Your task to perform on an android device: Search for pizza restaurants on Maps Image 0: 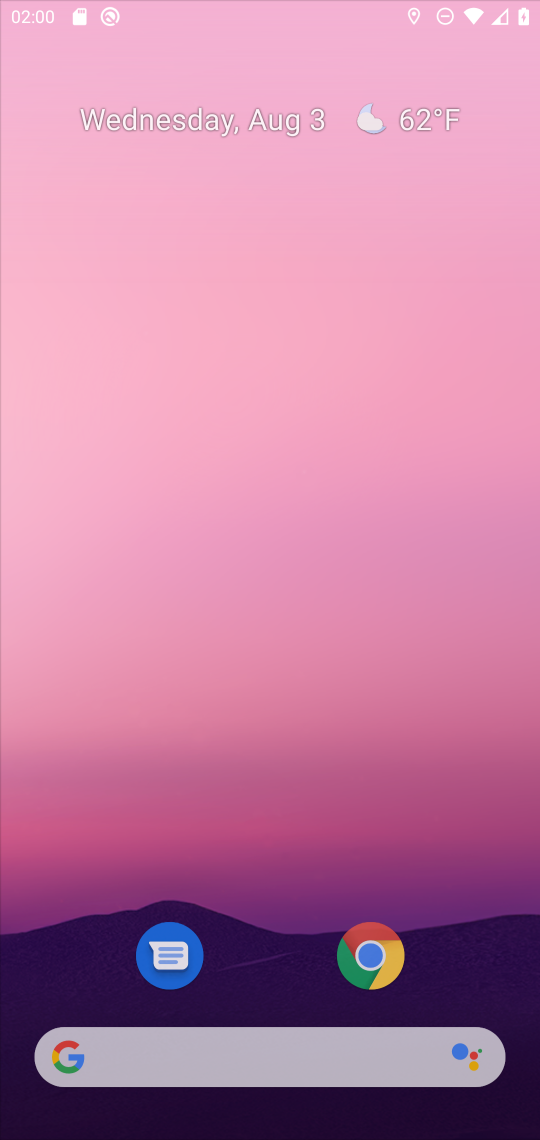
Step 0: press back button
Your task to perform on an android device: Search for pizza restaurants on Maps Image 1: 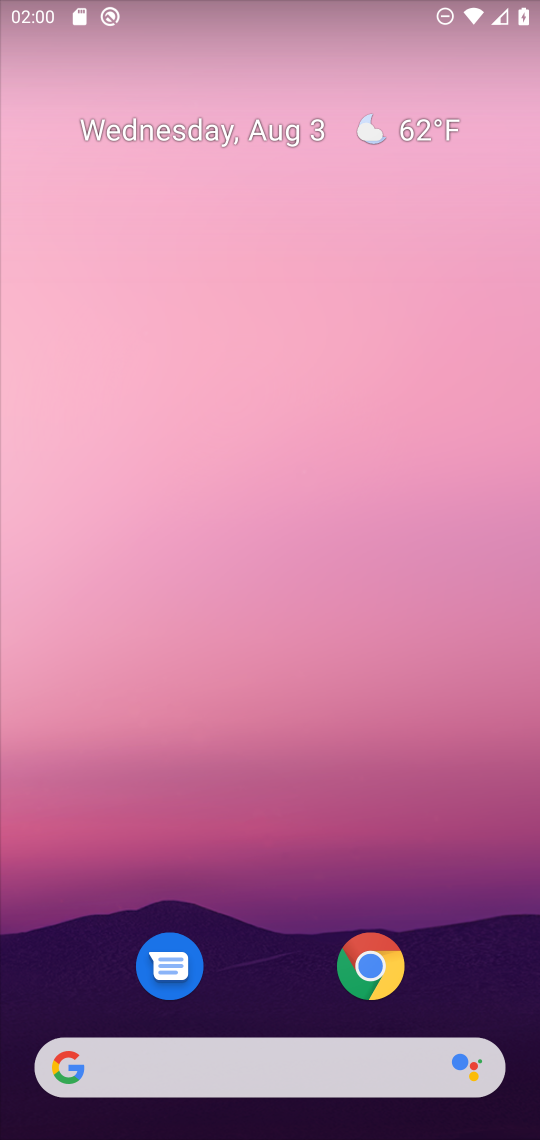
Step 1: drag from (246, 957) to (261, 306)
Your task to perform on an android device: Search for pizza restaurants on Maps Image 2: 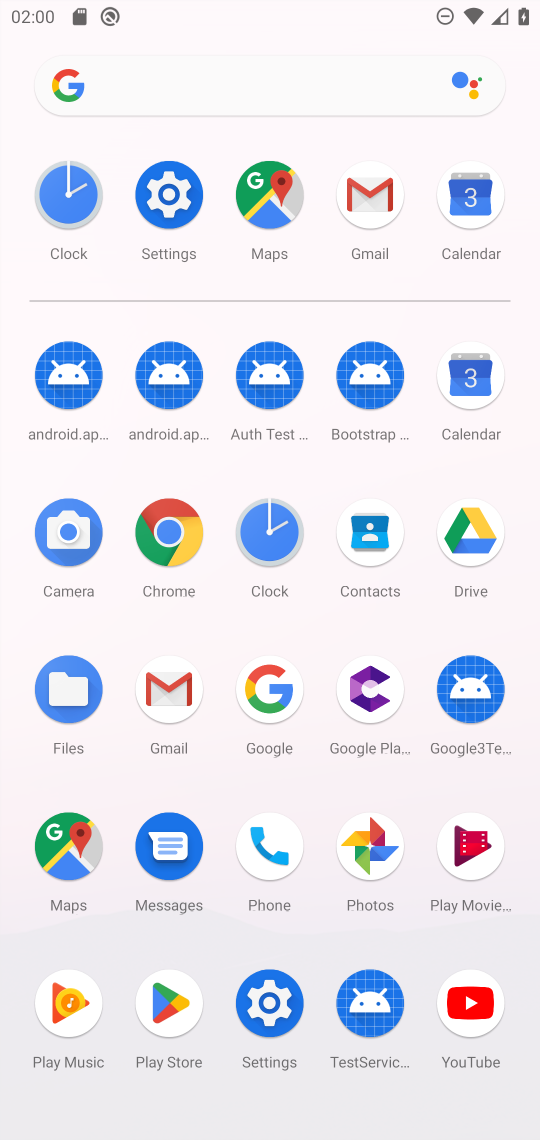
Step 2: click (258, 208)
Your task to perform on an android device: Search for pizza restaurants on Maps Image 3: 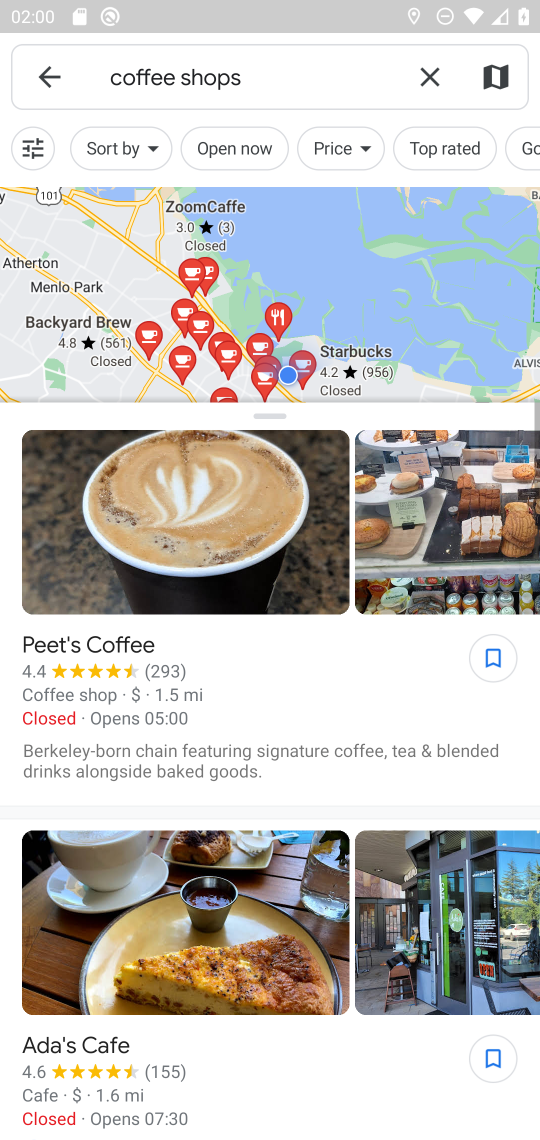
Step 3: click (415, 78)
Your task to perform on an android device: Search for pizza restaurants on Maps Image 4: 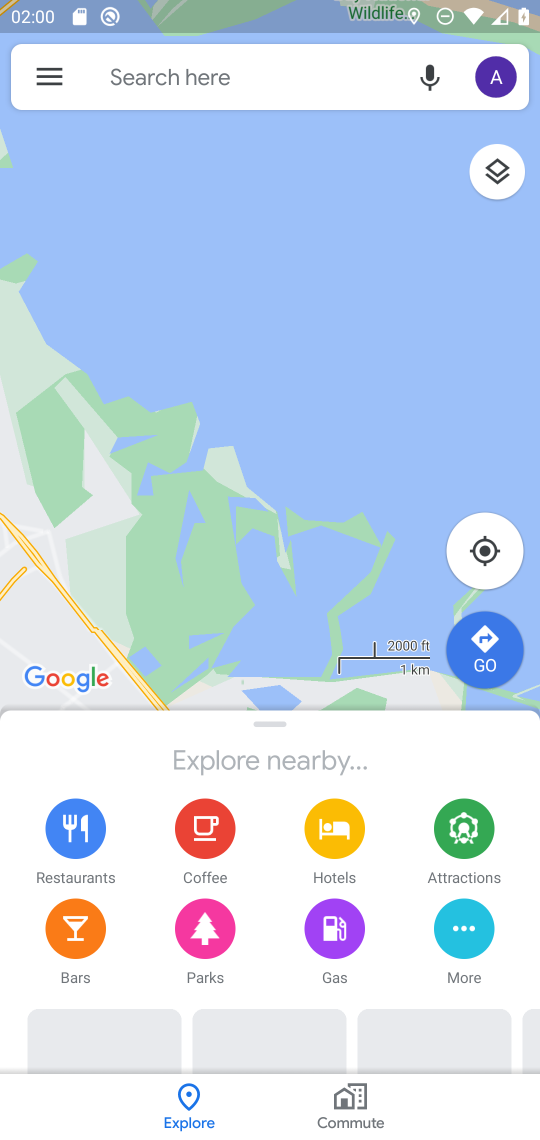
Step 4: click (322, 79)
Your task to perform on an android device: Search for pizza restaurants on Maps Image 5: 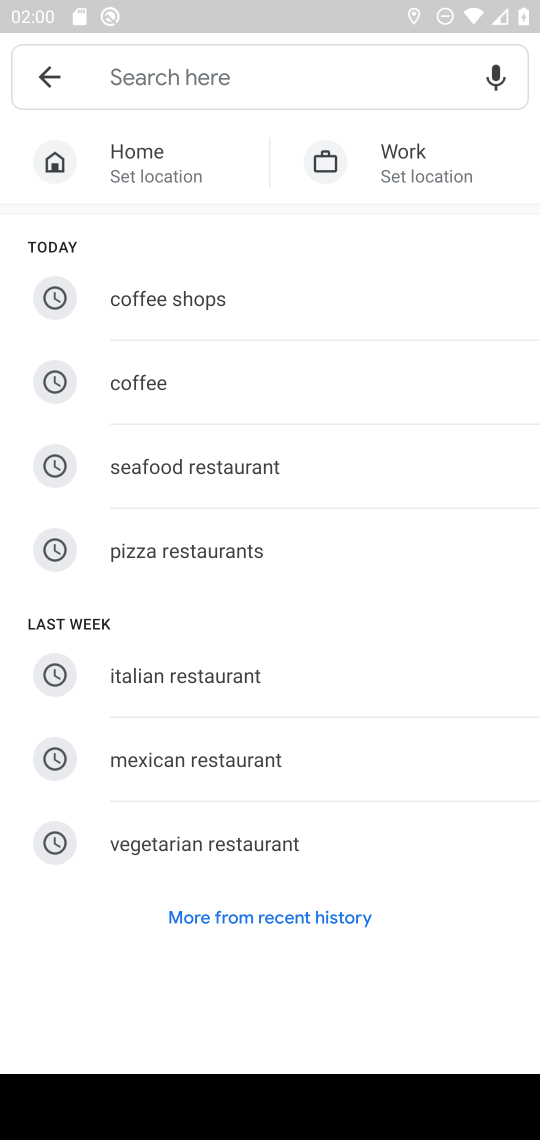
Step 5: type "pizza restaurants"
Your task to perform on an android device: Search for pizza restaurants on Maps Image 6: 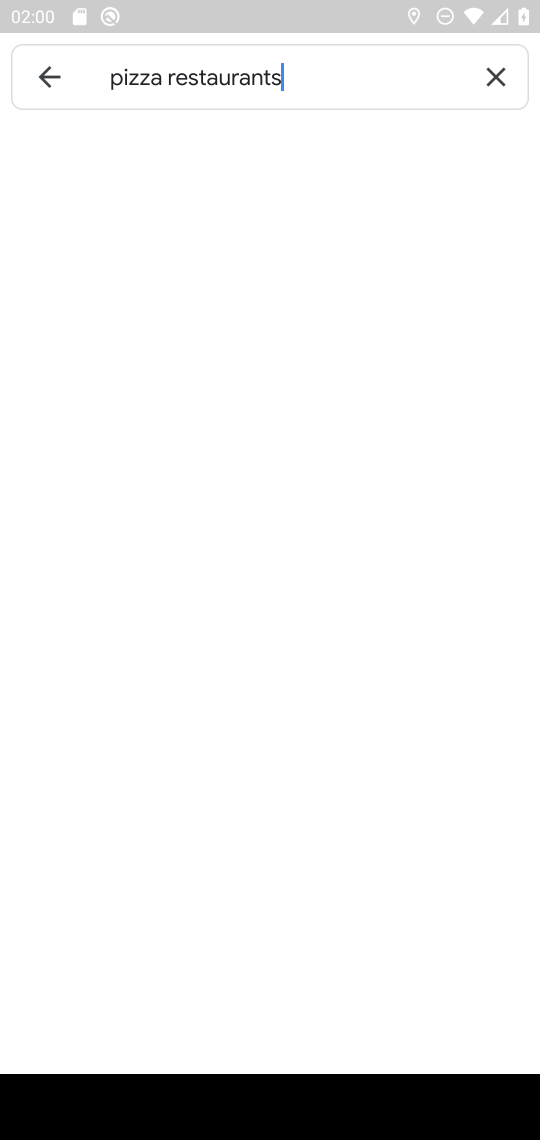
Step 6: type ""
Your task to perform on an android device: Search for pizza restaurants on Maps Image 7: 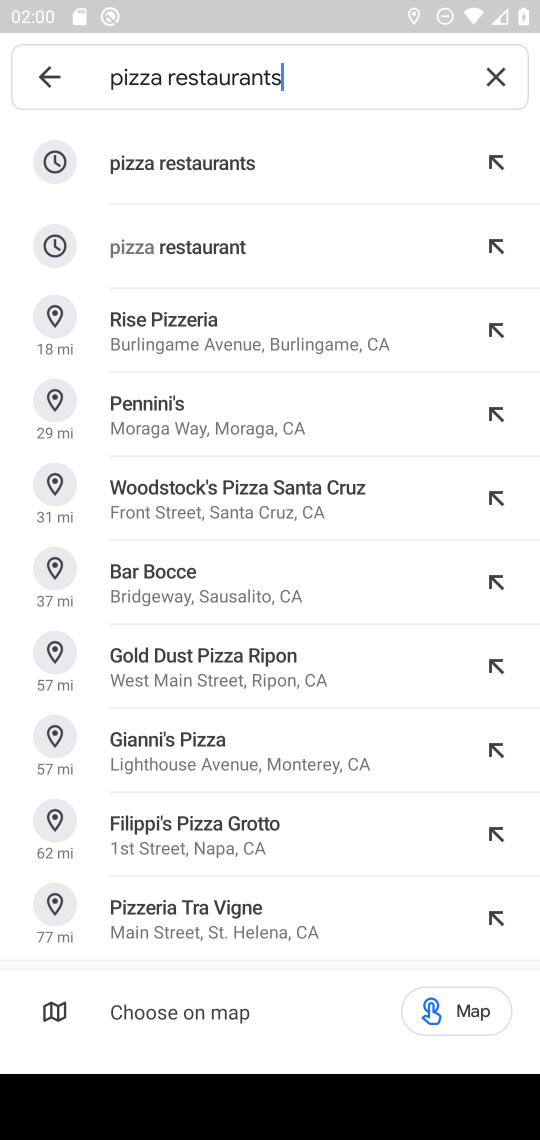
Step 7: click (158, 167)
Your task to perform on an android device: Search for pizza restaurants on Maps Image 8: 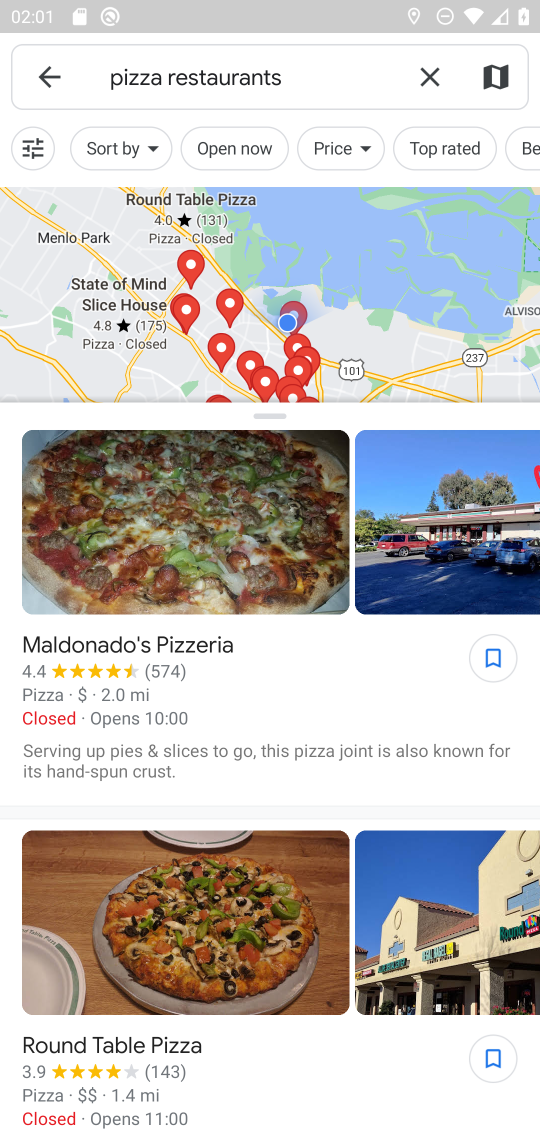
Step 8: task complete